Your task to perform on an android device: Open ESPN.com Image 0: 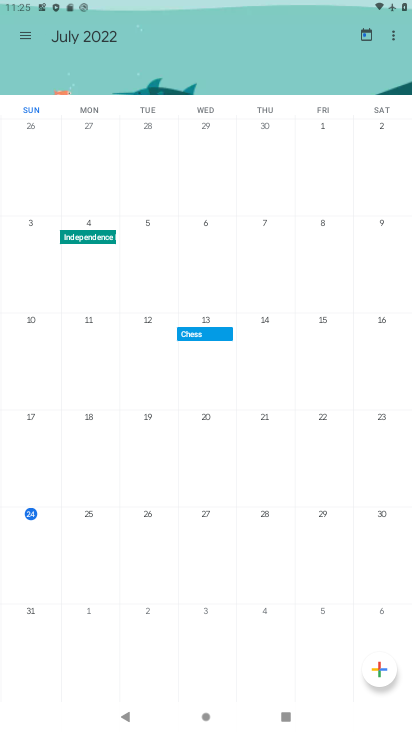
Step 0: task complete